Your task to perform on an android device: open app "PlayWell" (install if not already installed), go to login, and select forgot password Image 0: 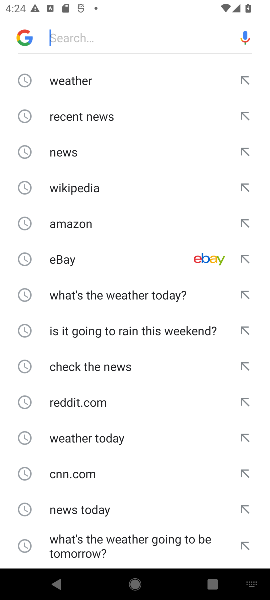
Step 0: press home button
Your task to perform on an android device: open app "PlayWell" (install if not already installed), go to login, and select forgot password Image 1: 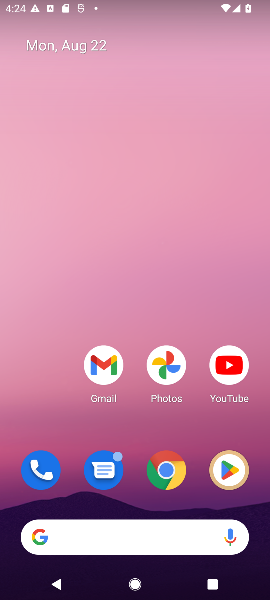
Step 1: drag from (79, 447) to (89, 134)
Your task to perform on an android device: open app "PlayWell" (install if not already installed), go to login, and select forgot password Image 2: 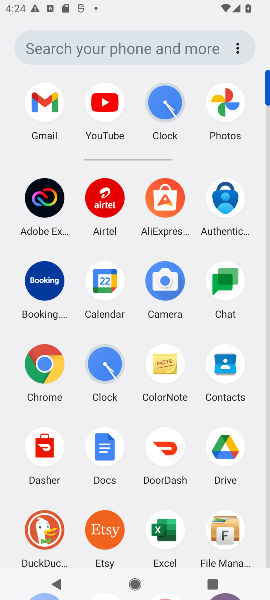
Step 2: drag from (178, 480) to (183, 107)
Your task to perform on an android device: open app "PlayWell" (install if not already installed), go to login, and select forgot password Image 3: 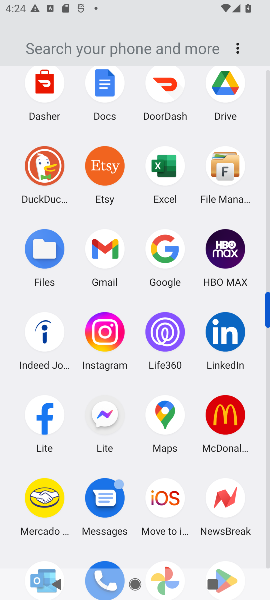
Step 3: drag from (181, 499) to (187, 137)
Your task to perform on an android device: open app "PlayWell" (install if not already installed), go to login, and select forgot password Image 4: 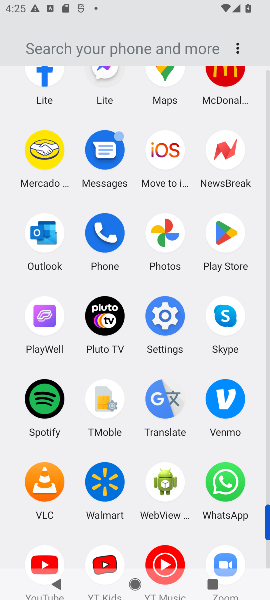
Step 4: click (222, 221)
Your task to perform on an android device: open app "PlayWell" (install if not already installed), go to login, and select forgot password Image 5: 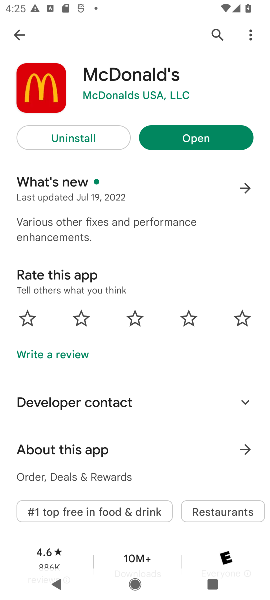
Step 5: click (25, 33)
Your task to perform on an android device: open app "PlayWell" (install if not already installed), go to login, and select forgot password Image 6: 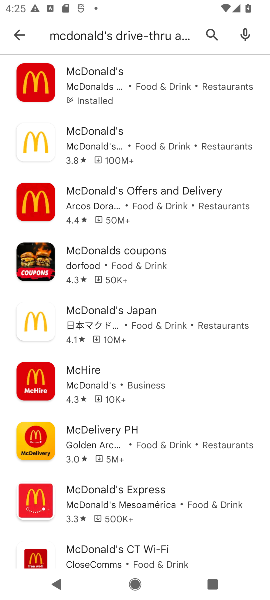
Step 6: click (23, 29)
Your task to perform on an android device: open app "PlayWell" (install if not already installed), go to login, and select forgot password Image 7: 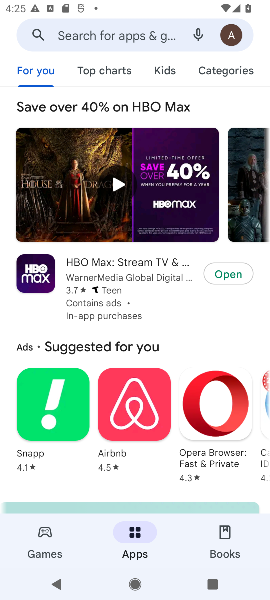
Step 7: click (41, 36)
Your task to perform on an android device: open app "PlayWell" (install if not already installed), go to login, and select forgot password Image 8: 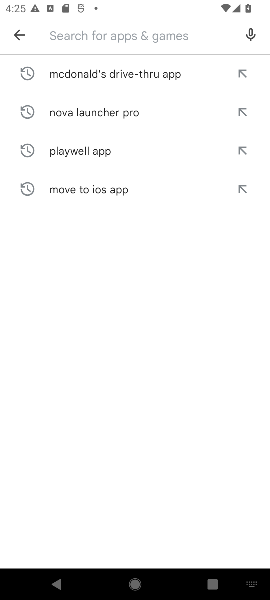
Step 8: type "playwell "
Your task to perform on an android device: open app "PlayWell" (install if not already installed), go to login, and select forgot password Image 9: 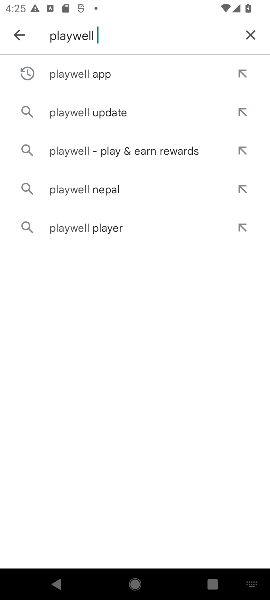
Step 9: click (69, 68)
Your task to perform on an android device: open app "PlayWell" (install if not already installed), go to login, and select forgot password Image 10: 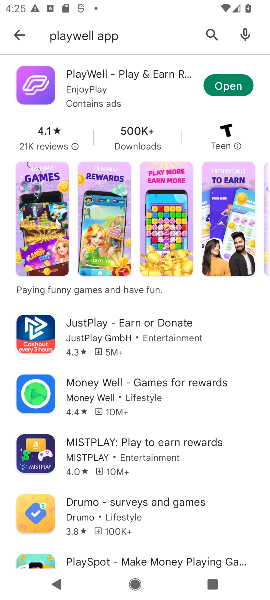
Step 10: click (236, 80)
Your task to perform on an android device: open app "PlayWell" (install if not already installed), go to login, and select forgot password Image 11: 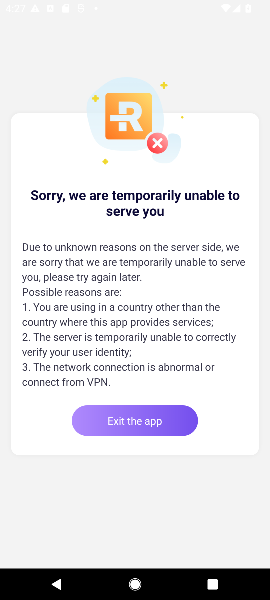
Step 11: click (153, 421)
Your task to perform on an android device: open app "PlayWell" (install if not already installed), go to login, and select forgot password Image 12: 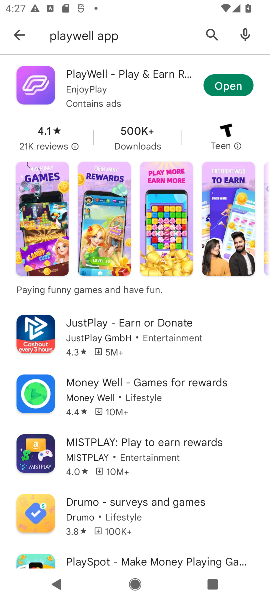
Step 12: click (230, 81)
Your task to perform on an android device: open app "PlayWell" (install if not already installed), go to login, and select forgot password Image 13: 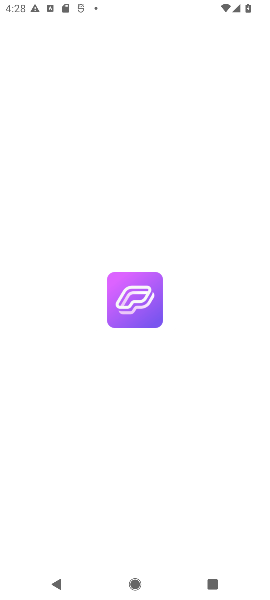
Step 13: task complete